Your task to perform on an android device: Open the web browser Image 0: 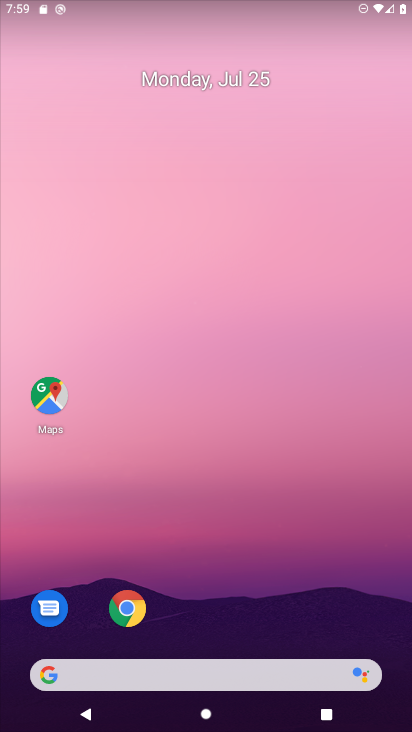
Step 0: click (134, 608)
Your task to perform on an android device: Open the web browser Image 1: 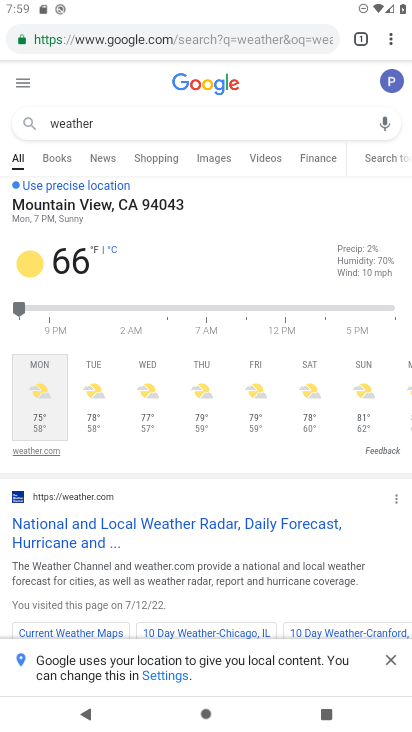
Step 1: task complete